Your task to perform on an android device: Open Android settings Image 0: 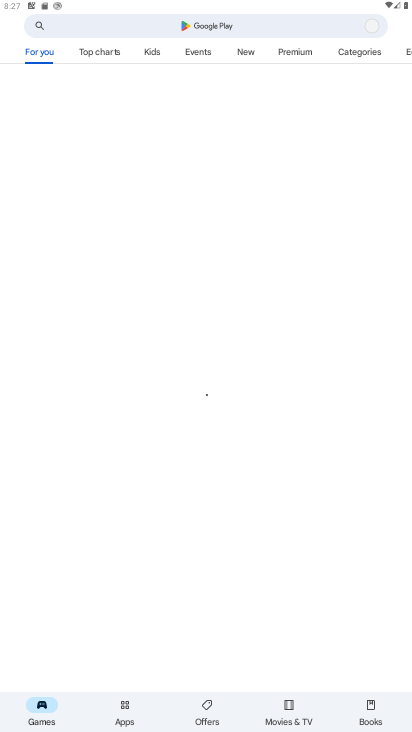
Step 0: press home button
Your task to perform on an android device: Open Android settings Image 1: 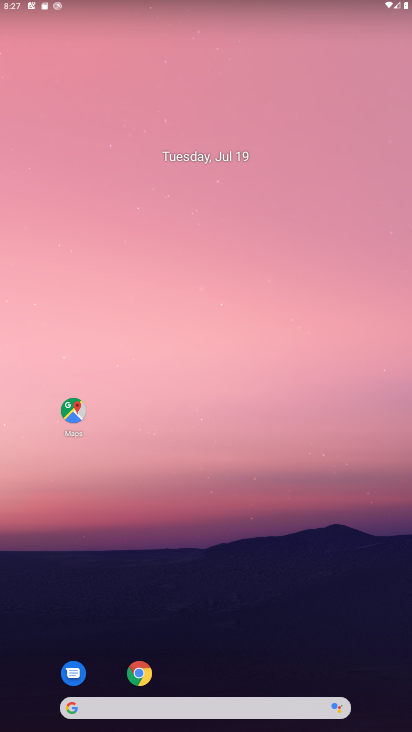
Step 1: drag from (329, 663) to (311, 113)
Your task to perform on an android device: Open Android settings Image 2: 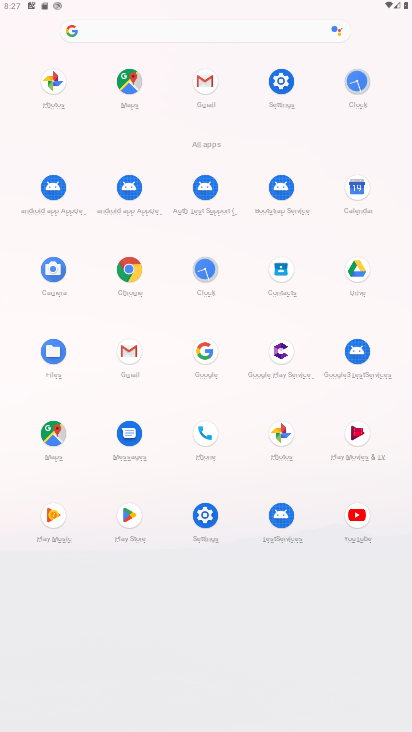
Step 2: click (205, 516)
Your task to perform on an android device: Open Android settings Image 3: 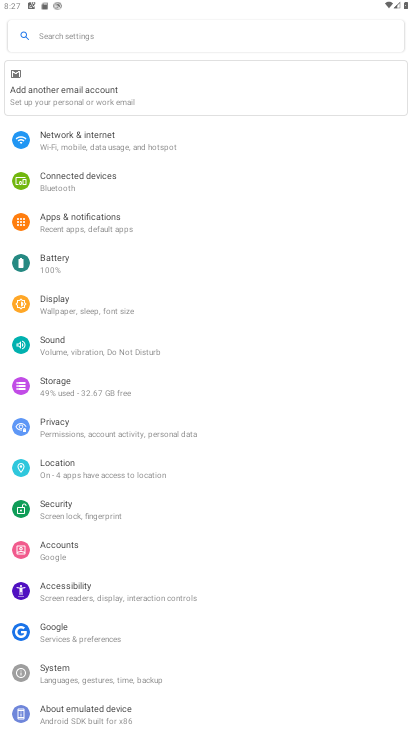
Step 3: click (98, 713)
Your task to perform on an android device: Open Android settings Image 4: 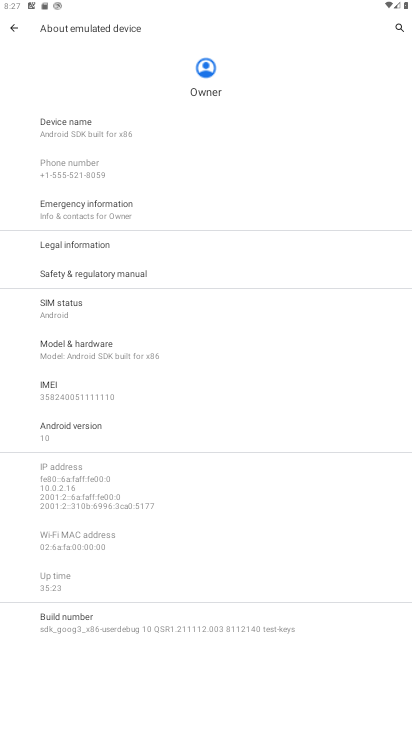
Step 4: task complete